Your task to perform on an android device: turn notification dots on Image 0: 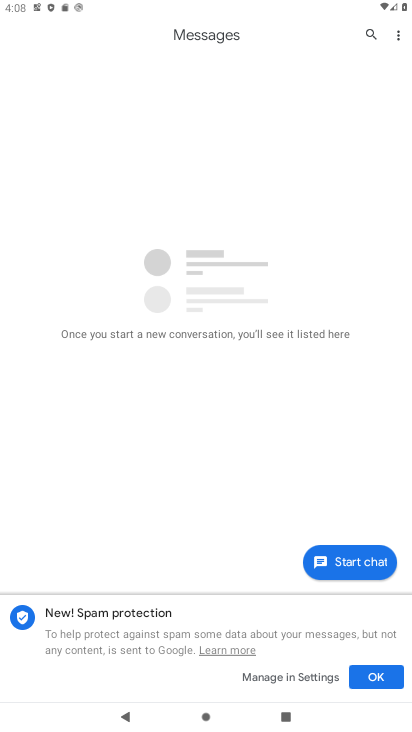
Step 0: press home button
Your task to perform on an android device: turn notification dots on Image 1: 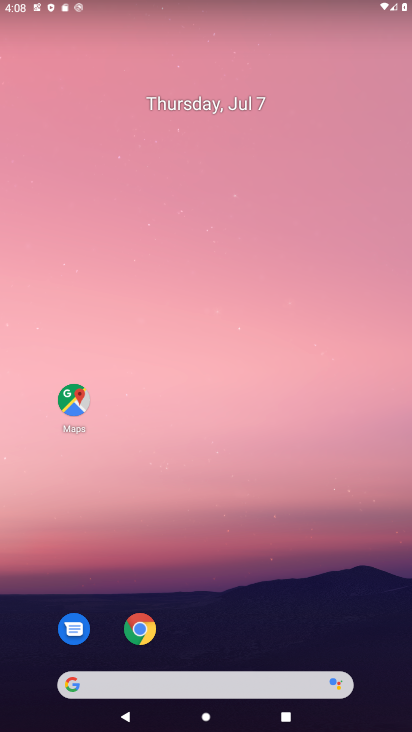
Step 1: drag from (253, 601) to (257, 189)
Your task to perform on an android device: turn notification dots on Image 2: 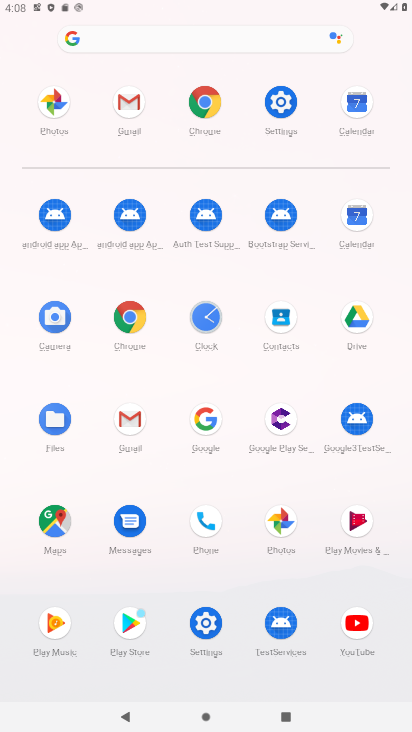
Step 2: click (128, 97)
Your task to perform on an android device: turn notification dots on Image 3: 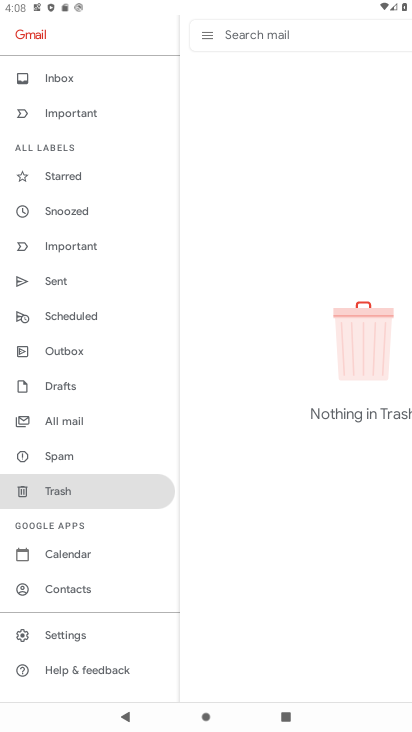
Step 3: press home button
Your task to perform on an android device: turn notification dots on Image 4: 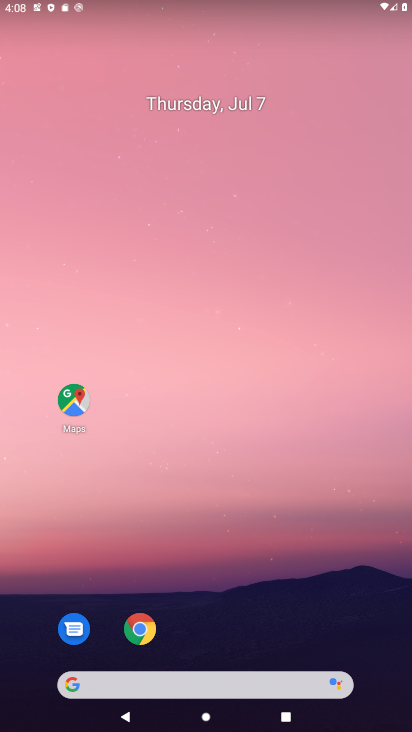
Step 4: drag from (194, 679) to (276, 329)
Your task to perform on an android device: turn notification dots on Image 5: 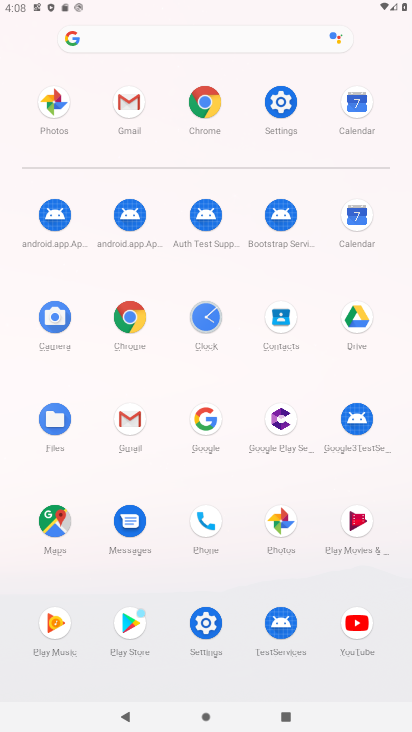
Step 5: click (280, 101)
Your task to perform on an android device: turn notification dots on Image 6: 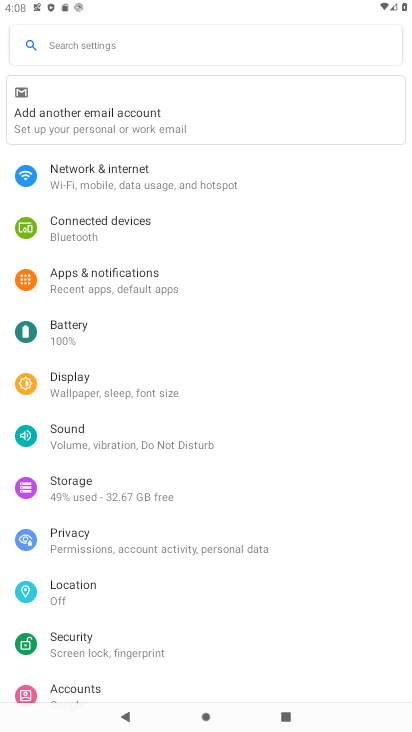
Step 6: click (174, 29)
Your task to perform on an android device: turn notification dots on Image 7: 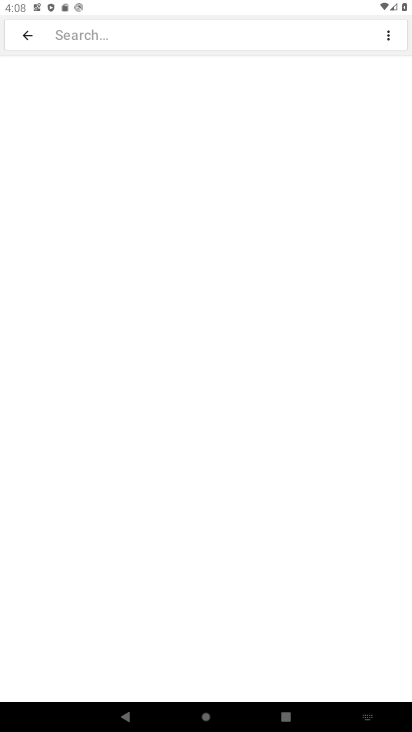
Step 7: type "notification dots "
Your task to perform on an android device: turn notification dots on Image 8: 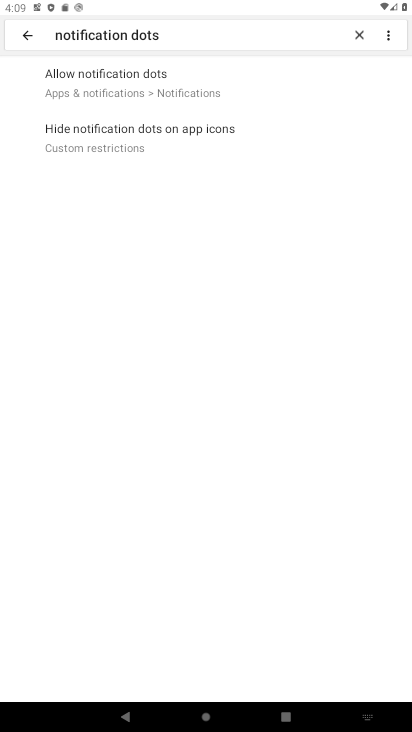
Step 8: click (119, 76)
Your task to perform on an android device: turn notification dots on Image 9: 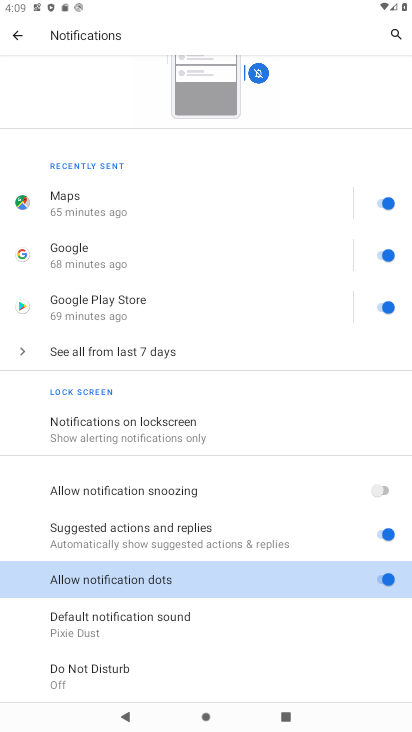
Step 9: task complete